Your task to perform on an android device: Open Wikipedia Image 0: 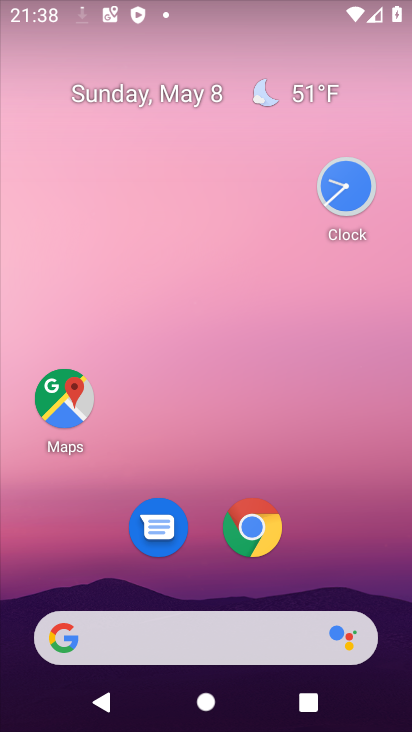
Step 0: click (243, 510)
Your task to perform on an android device: Open Wikipedia Image 1: 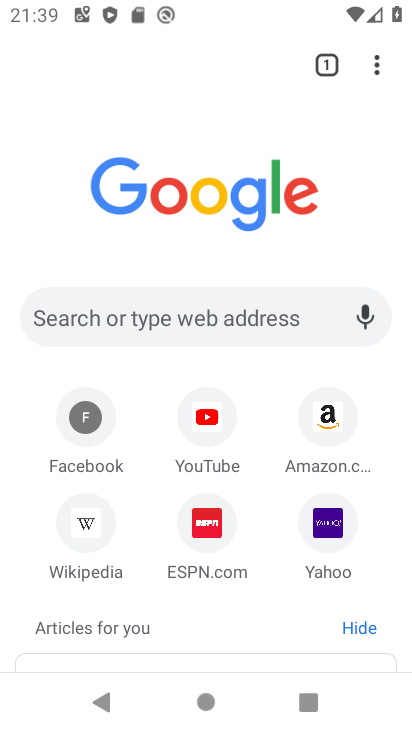
Step 1: click (84, 530)
Your task to perform on an android device: Open Wikipedia Image 2: 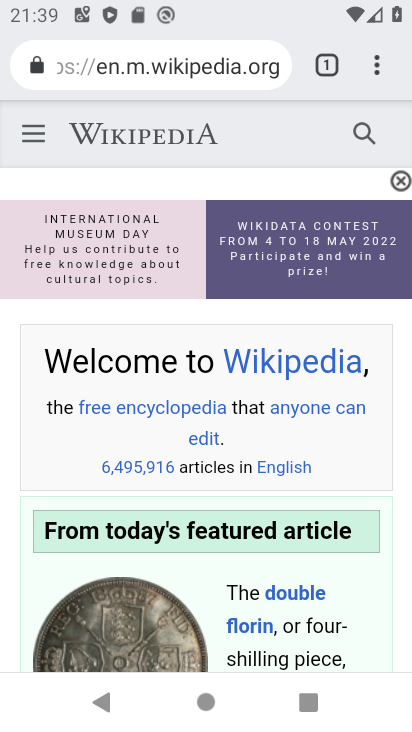
Step 2: task complete